Your task to perform on an android device: move an email to a new category in the gmail app Image 0: 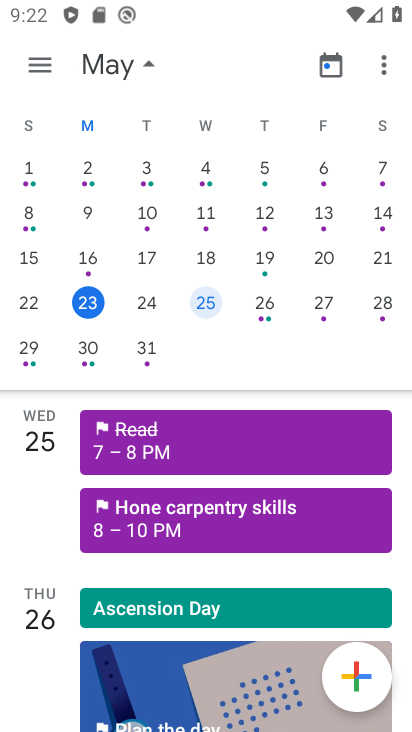
Step 0: press home button
Your task to perform on an android device: move an email to a new category in the gmail app Image 1: 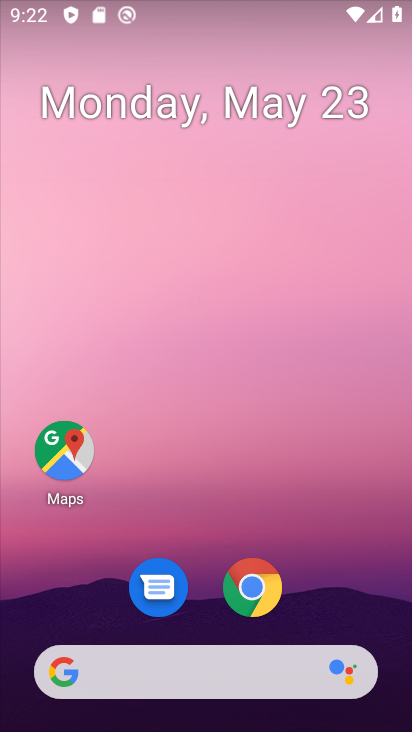
Step 1: drag from (359, 581) to (281, 58)
Your task to perform on an android device: move an email to a new category in the gmail app Image 2: 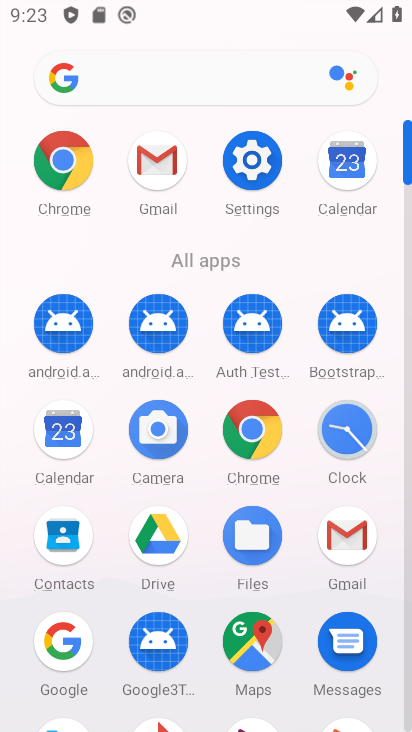
Step 2: click (345, 524)
Your task to perform on an android device: move an email to a new category in the gmail app Image 3: 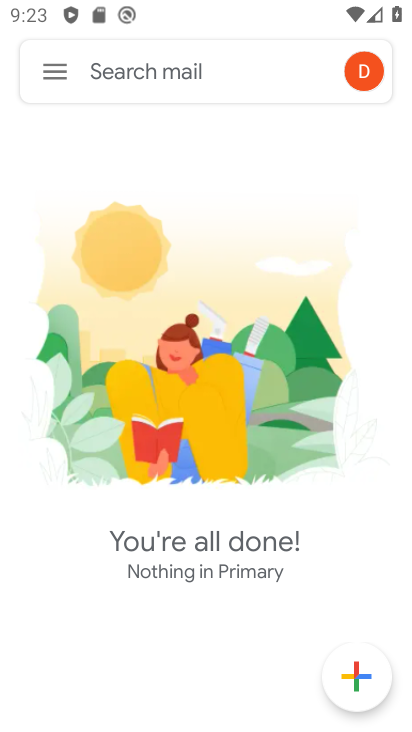
Step 3: click (52, 66)
Your task to perform on an android device: move an email to a new category in the gmail app Image 4: 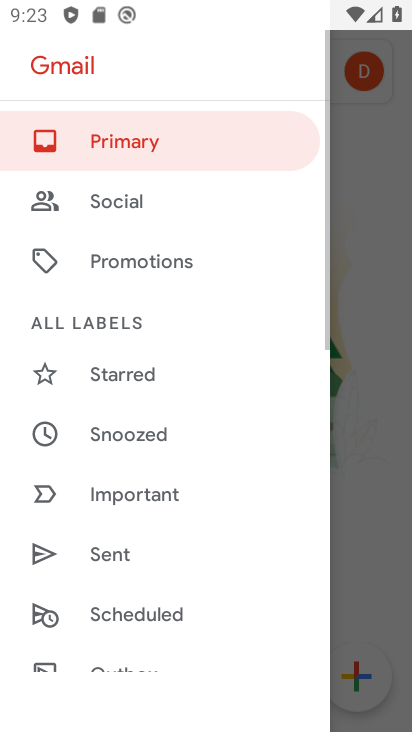
Step 4: drag from (158, 575) to (137, 169)
Your task to perform on an android device: move an email to a new category in the gmail app Image 5: 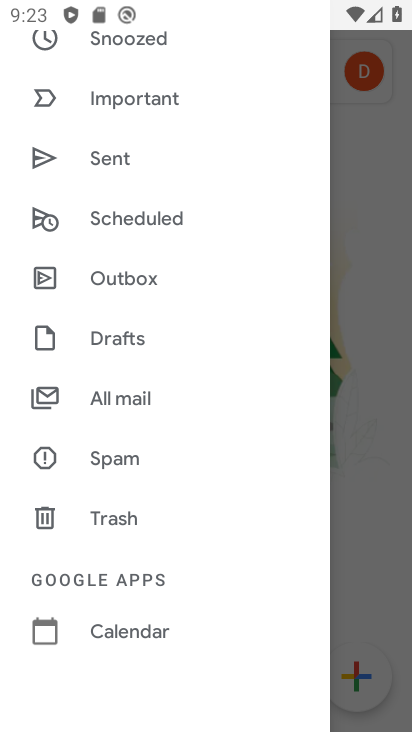
Step 5: click (95, 408)
Your task to perform on an android device: move an email to a new category in the gmail app Image 6: 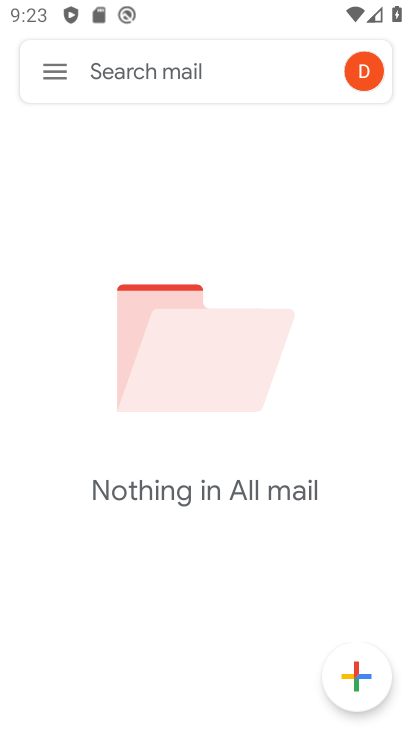
Step 6: task complete